Your task to perform on an android device: Play the last video I watched on Youtube Image 0: 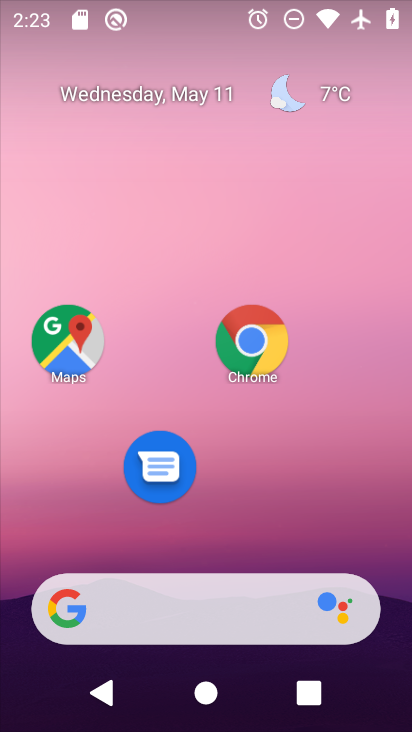
Step 0: press home button
Your task to perform on an android device: Play the last video I watched on Youtube Image 1: 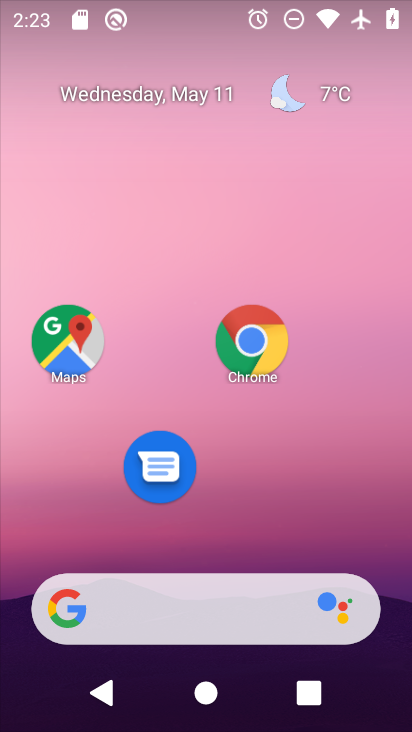
Step 1: drag from (171, 608) to (271, 187)
Your task to perform on an android device: Play the last video I watched on Youtube Image 2: 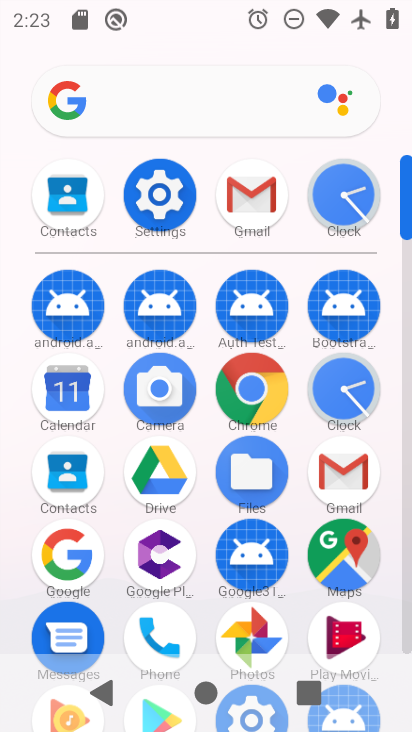
Step 2: drag from (192, 654) to (364, 92)
Your task to perform on an android device: Play the last video I watched on Youtube Image 3: 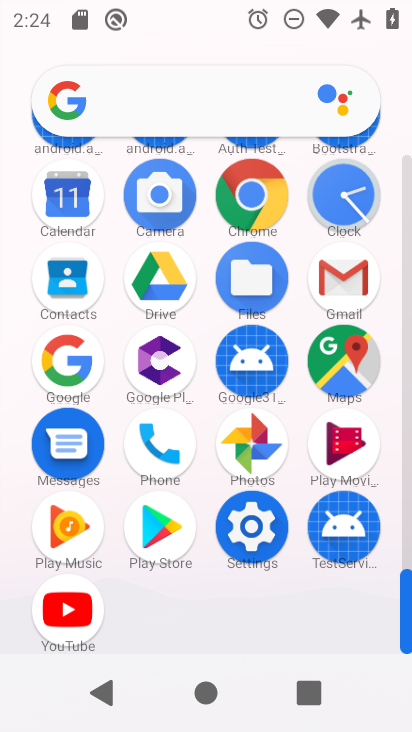
Step 3: click (72, 608)
Your task to perform on an android device: Play the last video I watched on Youtube Image 4: 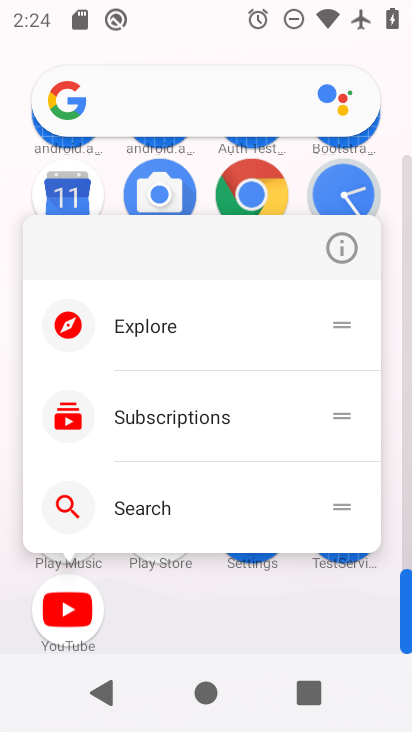
Step 4: click (74, 609)
Your task to perform on an android device: Play the last video I watched on Youtube Image 5: 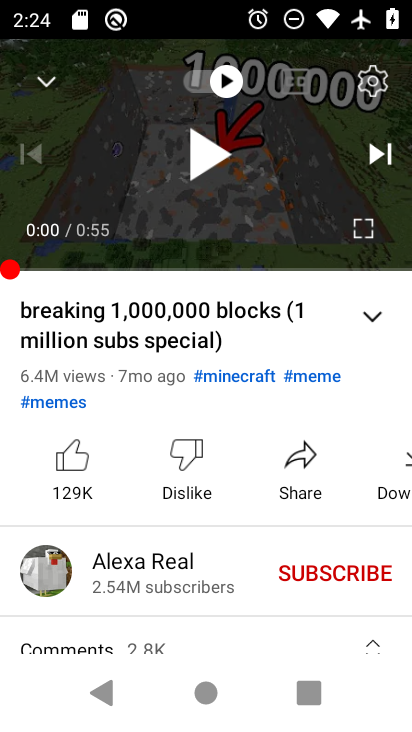
Step 5: press back button
Your task to perform on an android device: Play the last video I watched on Youtube Image 6: 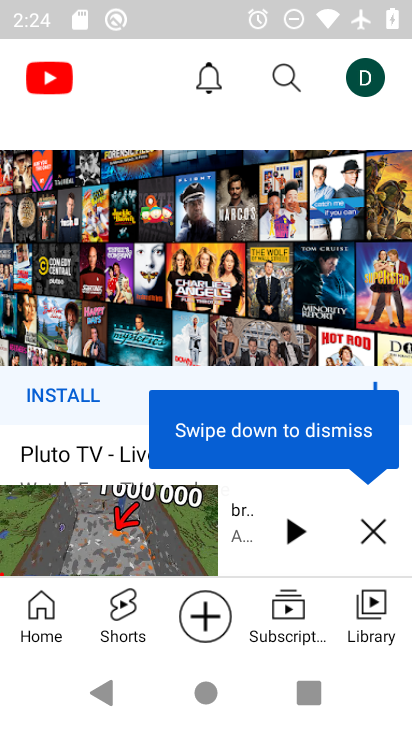
Step 6: click (370, 602)
Your task to perform on an android device: Play the last video I watched on Youtube Image 7: 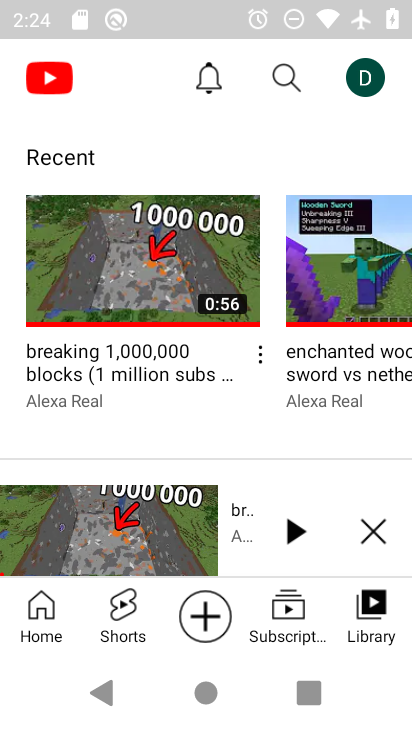
Step 7: click (375, 532)
Your task to perform on an android device: Play the last video I watched on Youtube Image 8: 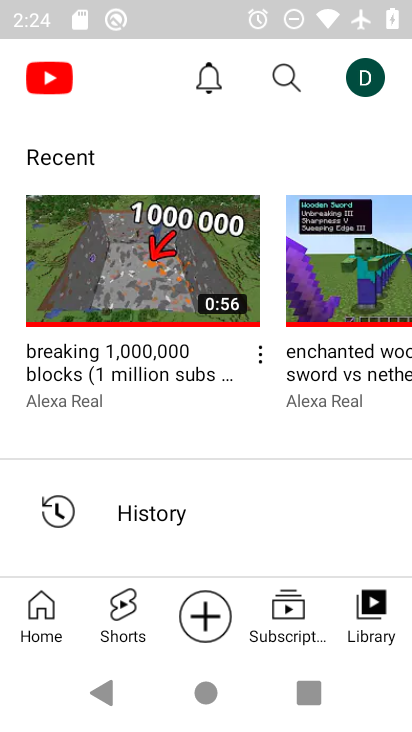
Step 8: click (157, 256)
Your task to perform on an android device: Play the last video I watched on Youtube Image 9: 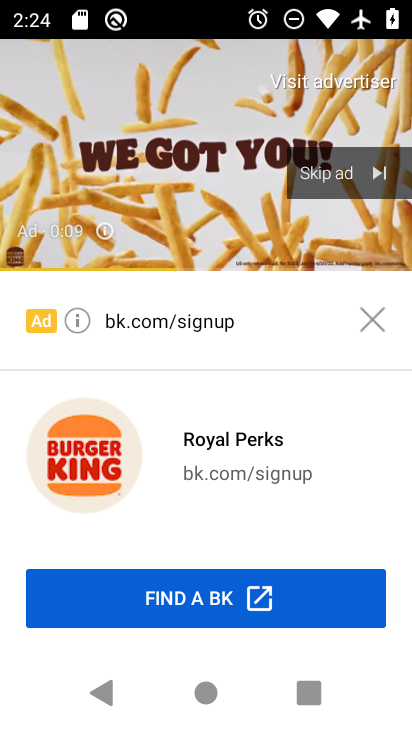
Step 9: click (329, 178)
Your task to perform on an android device: Play the last video I watched on Youtube Image 10: 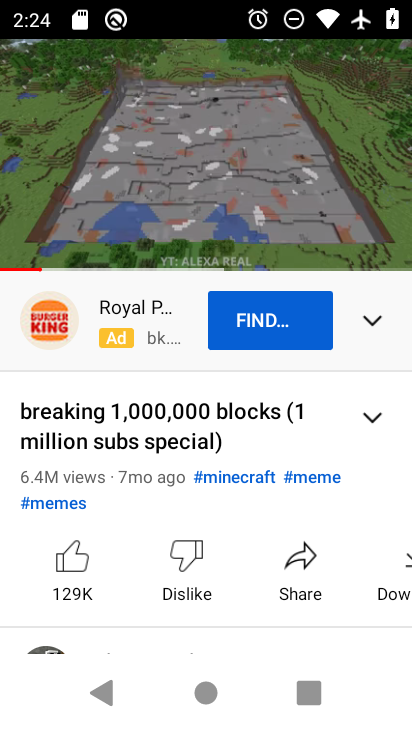
Step 10: click (239, 151)
Your task to perform on an android device: Play the last video I watched on Youtube Image 11: 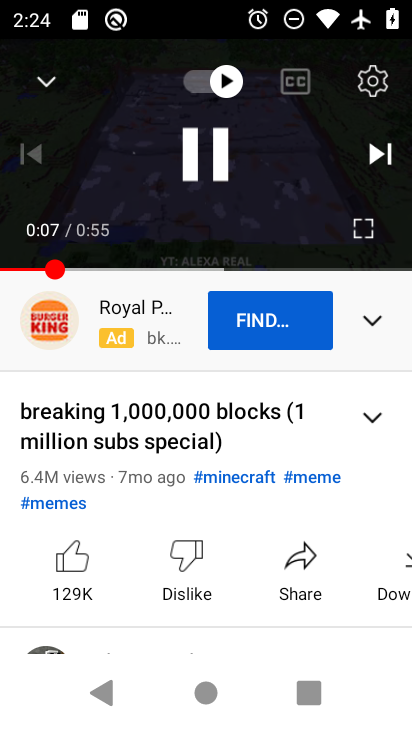
Step 11: click (224, 155)
Your task to perform on an android device: Play the last video I watched on Youtube Image 12: 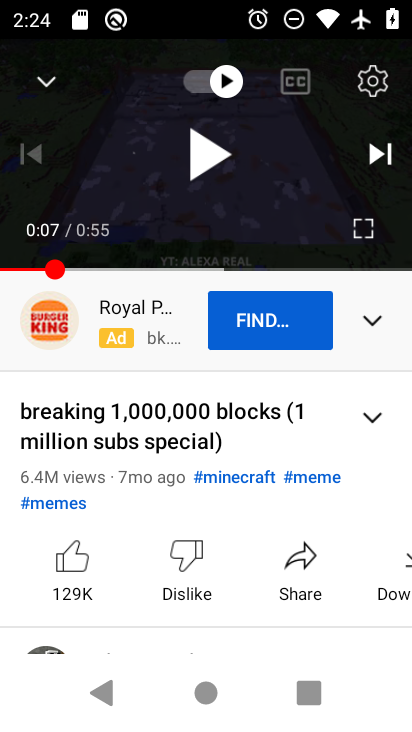
Step 12: task complete